Your task to perform on an android device: toggle show notifications on the lock screen Image 0: 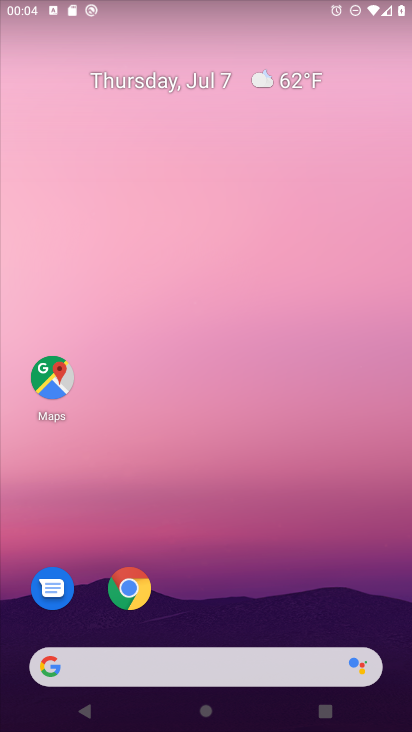
Step 0: drag from (397, 624) to (346, 86)
Your task to perform on an android device: toggle show notifications on the lock screen Image 1: 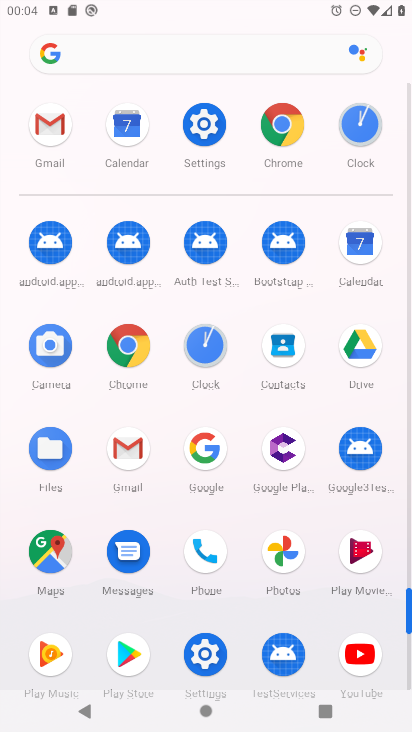
Step 1: click (203, 650)
Your task to perform on an android device: toggle show notifications on the lock screen Image 2: 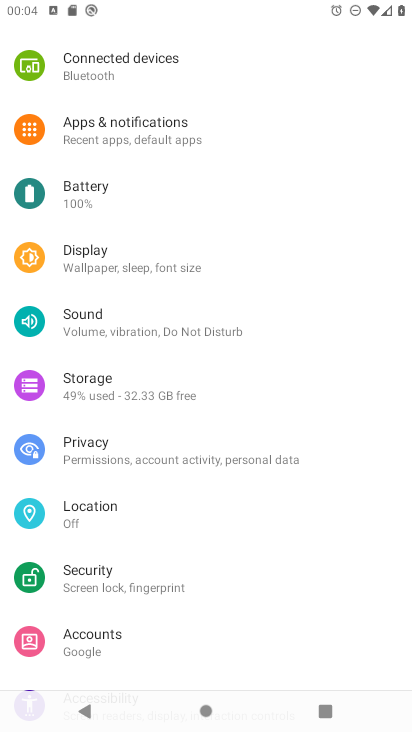
Step 2: click (111, 128)
Your task to perform on an android device: toggle show notifications on the lock screen Image 3: 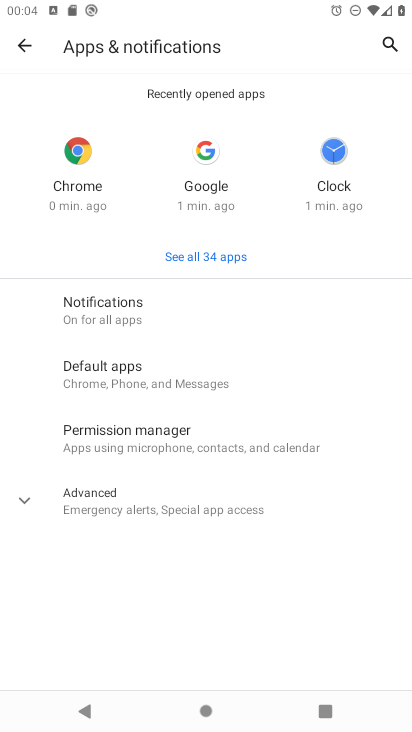
Step 3: click (91, 307)
Your task to perform on an android device: toggle show notifications on the lock screen Image 4: 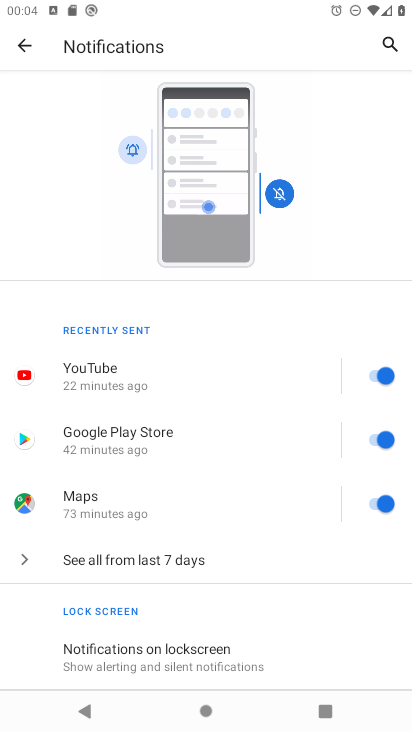
Step 4: drag from (307, 645) to (311, 302)
Your task to perform on an android device: toggle show notifications on the lock screen Image 5: 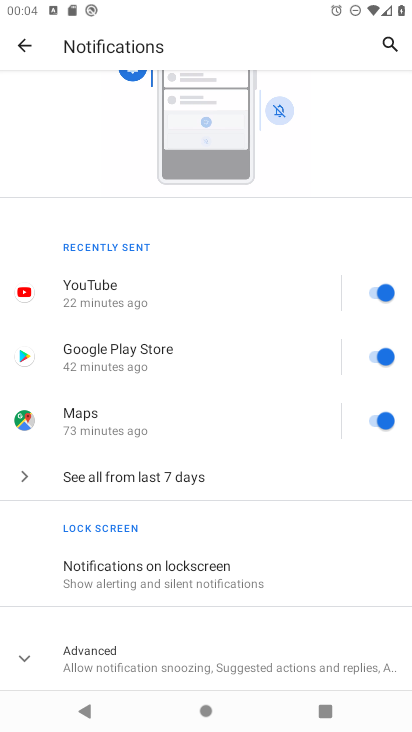
Step 5: click (142, 568)
Your task to perform on an android device: toggle show notifications on the lock screen Image 6: 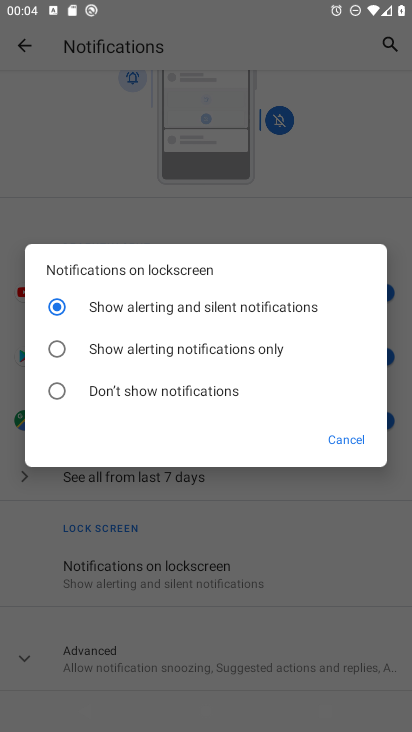
Step 6: click (55, 348)
Your task to perform on an android device: toggle show notifications on the lock screen Image 7: 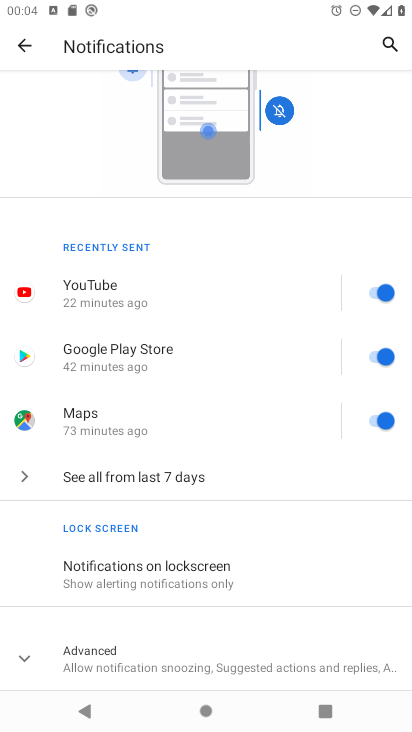
Step 7: task complete